Your task to perform on an android device: change timer sound Image 0: 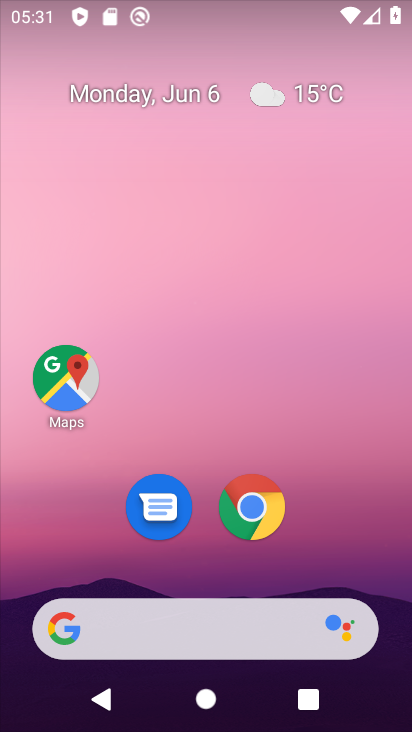
Step 0: drag from (214, 540) to (219, 3)
Your task to perform on an android device: change timer sound Image 1: 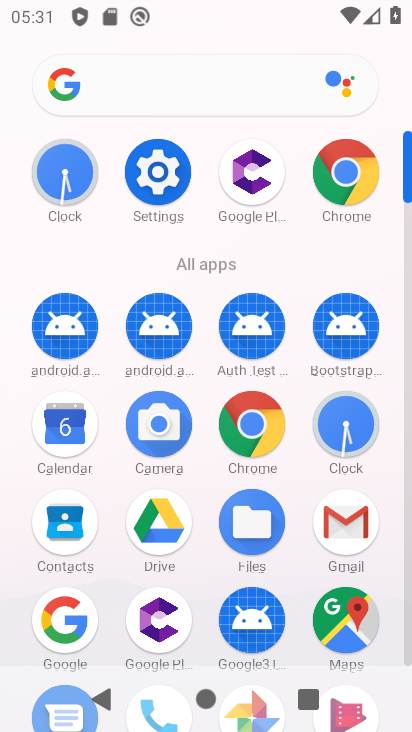
Step 1: click (81, 220)
Your task to perform on an android device: change timer sound Image 2: 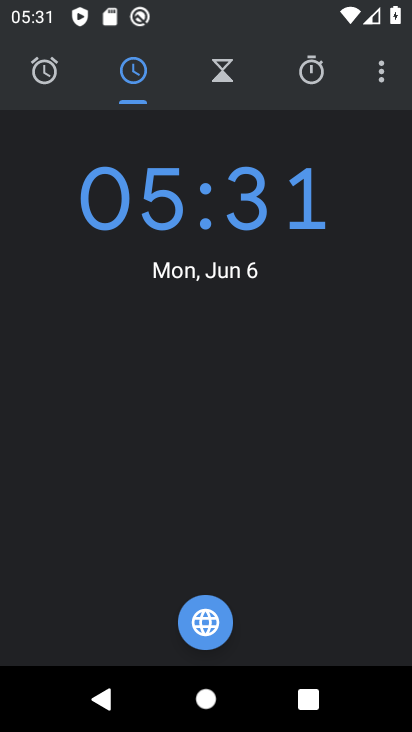
Step 2: click (381, 73)
Your task to perform on an android device: change timer sound Image 3: 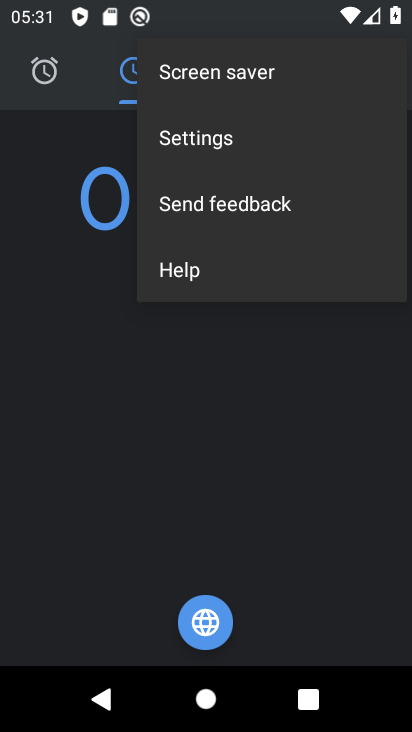
Step 3: click (163, 151)
Your task to perform on an android device: change timer sound Image 4: 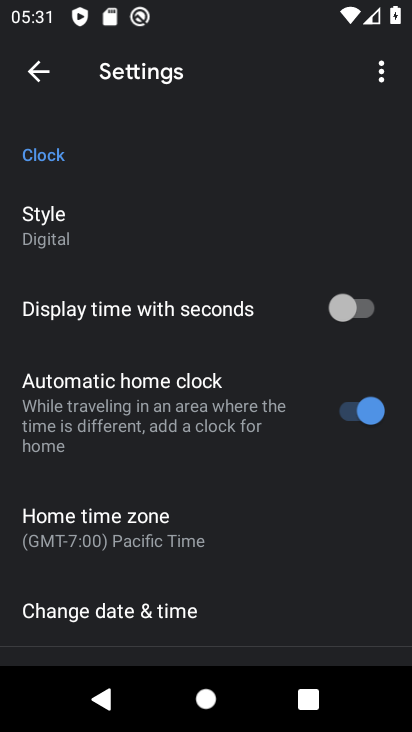
Step 4: click (172, 609)
Your task to perform on an android device: change timer sound Image 5: 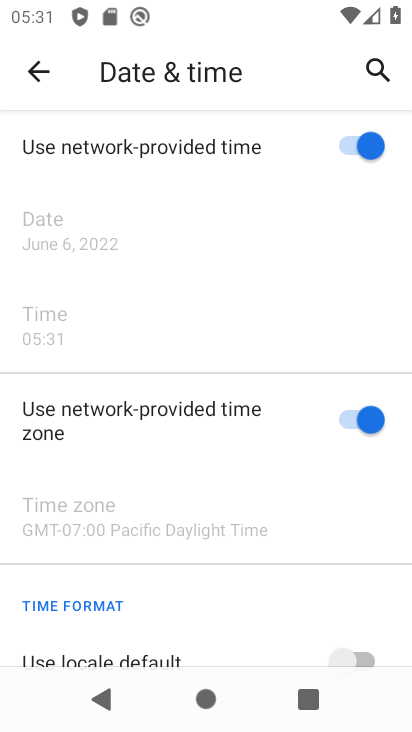
Step 5: press back button
Your task to perform on an android device: change timer sound Image 6: 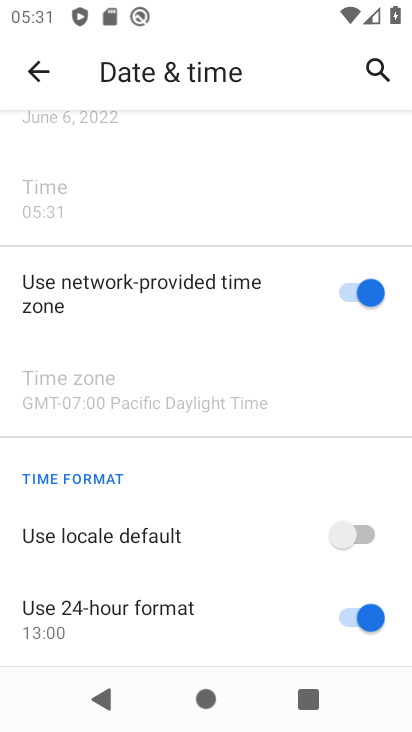
Step 6: drag from (252, 217) to (243, 718)
Your task to perform on an android device: change timer sound Image 7: 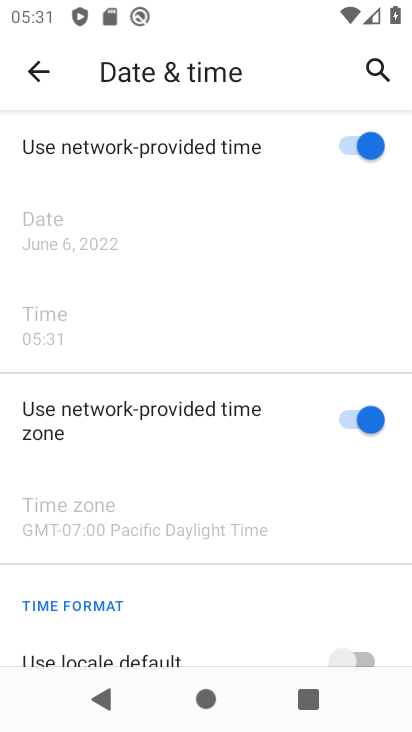
Step 7: drag from (233, 635) to (225, 108)
Your task to perform on an android device: change timer sound Image 8: 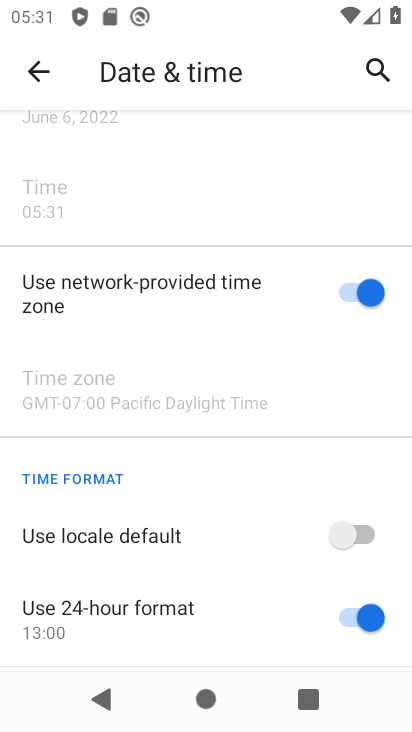
Step 8: click (58, 67)
Your task to perform on an android device: change timer sound Image 9: 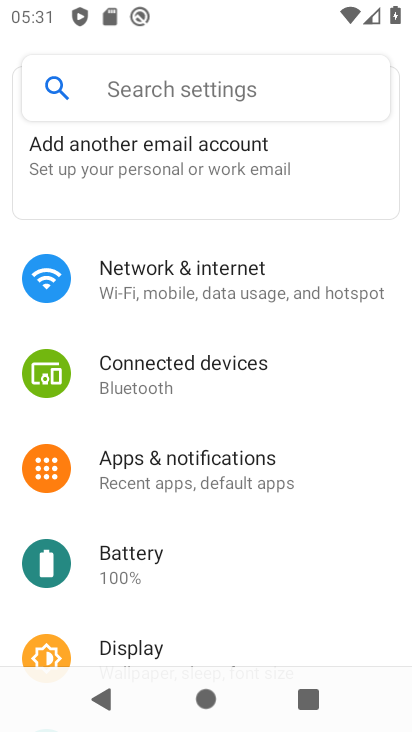
Step 9: drag from (186, 598) to (205, 280)
Your task to perform on an android device: change timer sound Image 10: 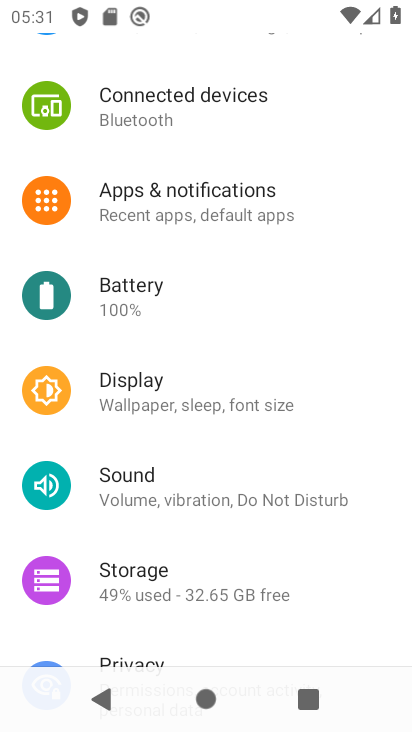
Step 10: drag from (155, 591) to (245, 260)
Your task to perform on an android device: change timer sound Image 11: 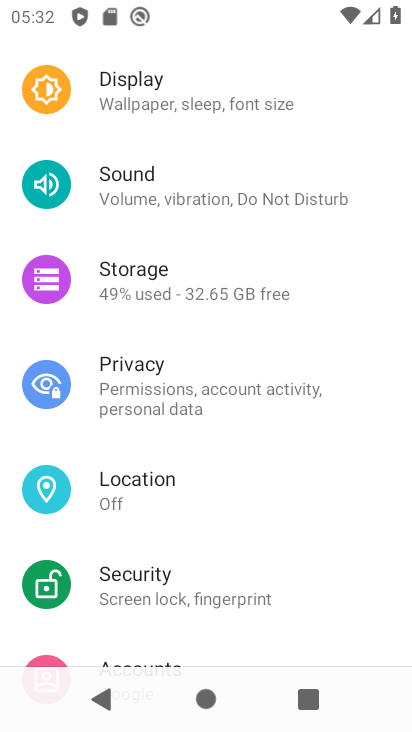
Step 11: drag from (212, 333) to (182, 598)
Your task to perform on an android device: change timer sound Image 12: 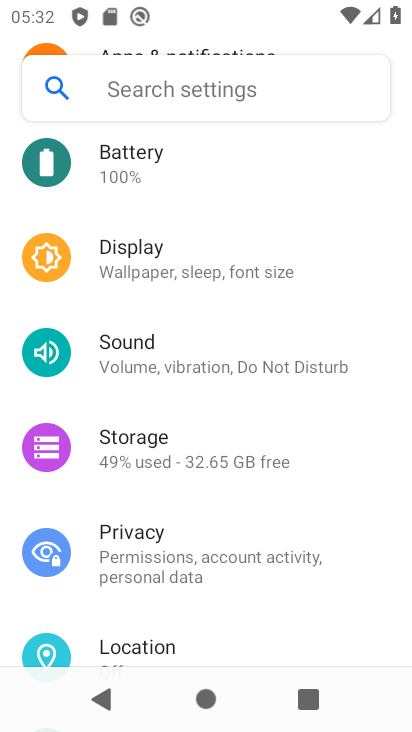
Step 12: drag from (257, 235) to (253, 466)
Your task to perform on an android device: change timer sound Image 13: 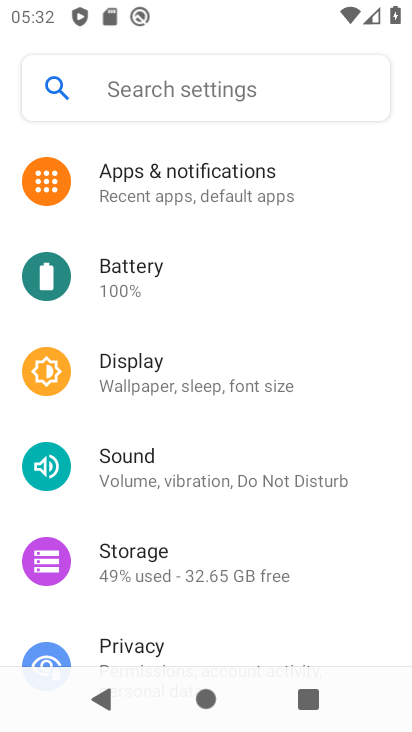
Step 13: drag from (191, 583) to (214, 310)
Your task to perform on an android device: change timer sound Image 14: 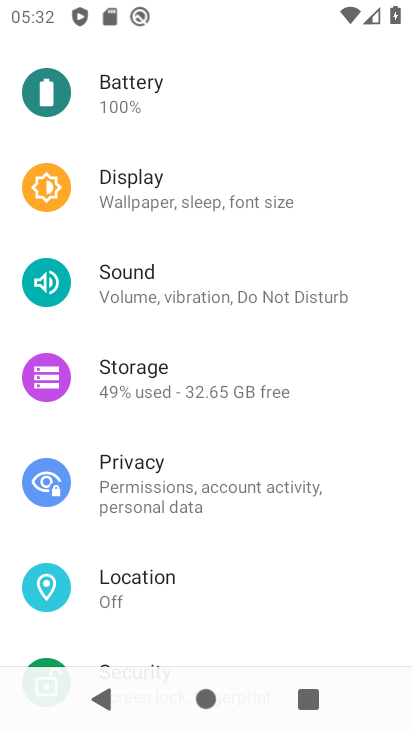
Step 14: drag from (199, 543) to (242, 257)
Your task to perform on an android device: change timer sound Image 15: 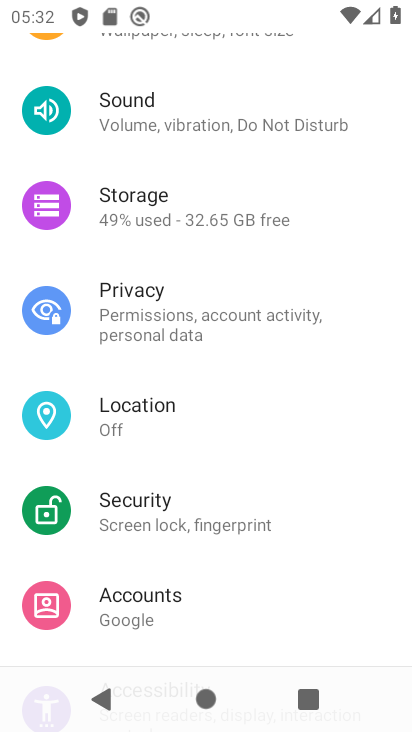
Step 15: drag from (228, 258) to (197, 482)
Your task to perform on an android device: change timer sound Image 16: 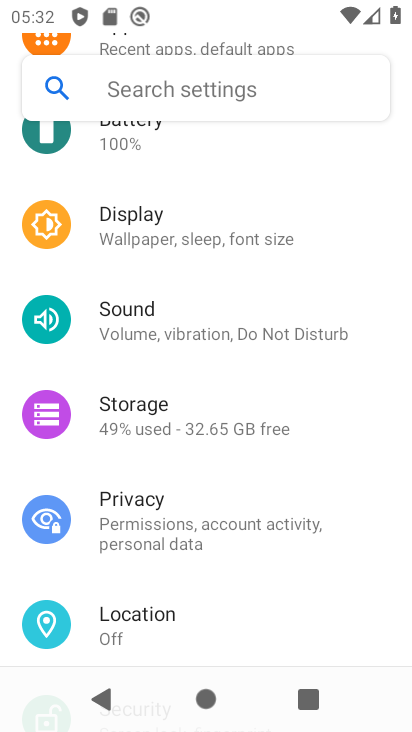
Step 16: drag from (248, 314) to (274, 691)
Your task to perform on an android device: change timer sound Image 17: 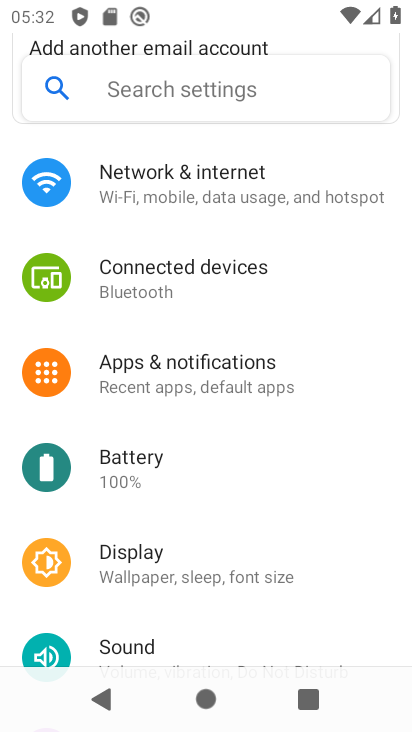
Step 17: press back button
Your task to perform on an android device: change timer sound Image 18: 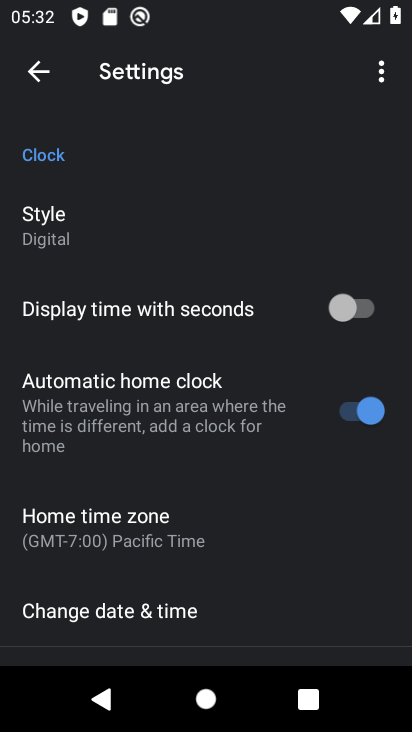
Step 18: drag from (216, 610) to (186, 82)
Your task to perform on an android device: change timer sound Image 19: 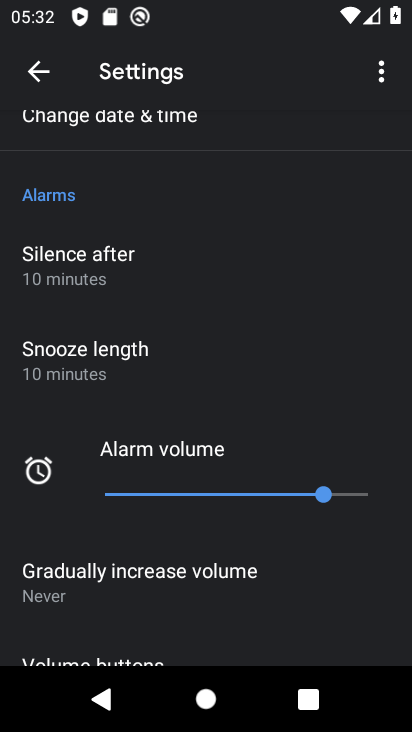
Step 19: drag from (155, 603) to (291, 199)
Your task to perform on an android device: change timer sound Image 20: 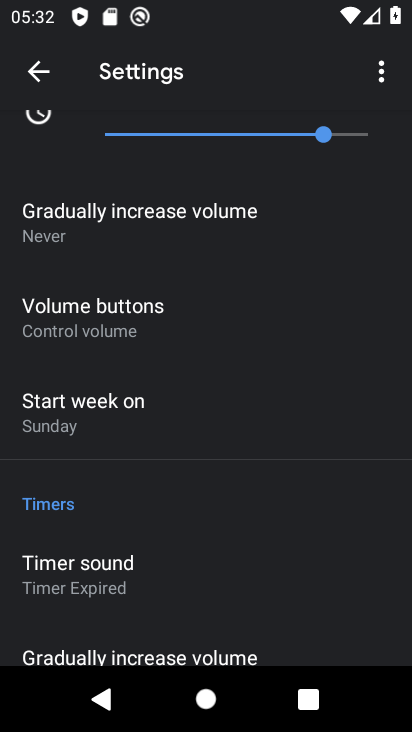
Step 20: drag from (154, 546) to (194, 262)
Your task to perform on an android device: change timer sound Image 21: 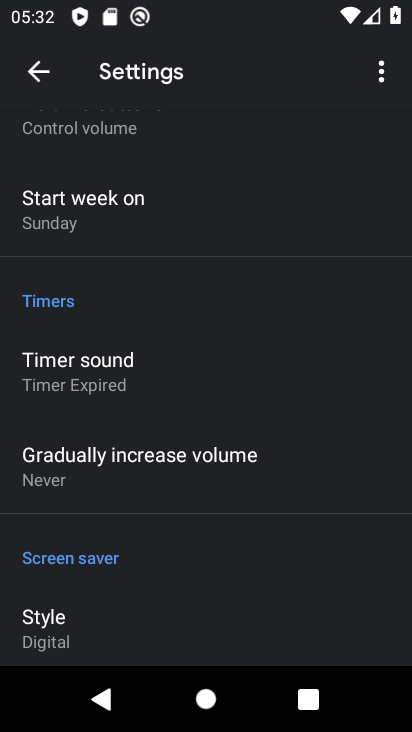
Step 21: click (118, 368)
Your task to perform on an android device: change timer sound Image 22: 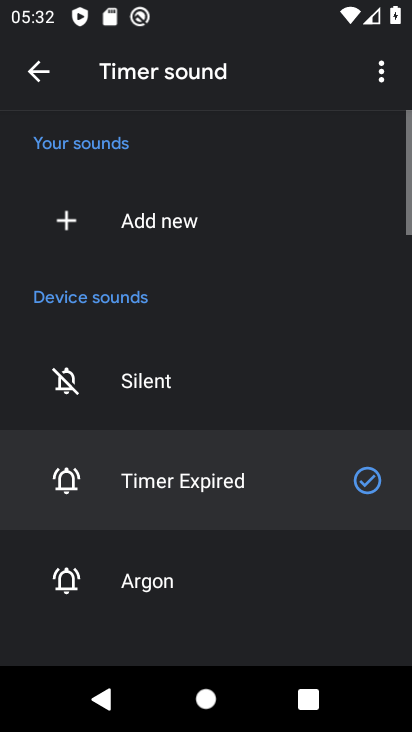
Step 22: click (148, 612)
Your task to perform on an android device: change timer sound Image 23: 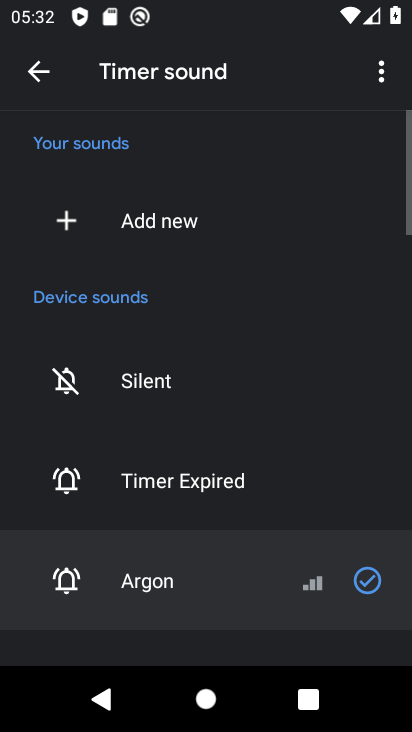
Step 23: task complete